Your task to perform on an android device: Search for sushi restaurants on Maps Image 0: 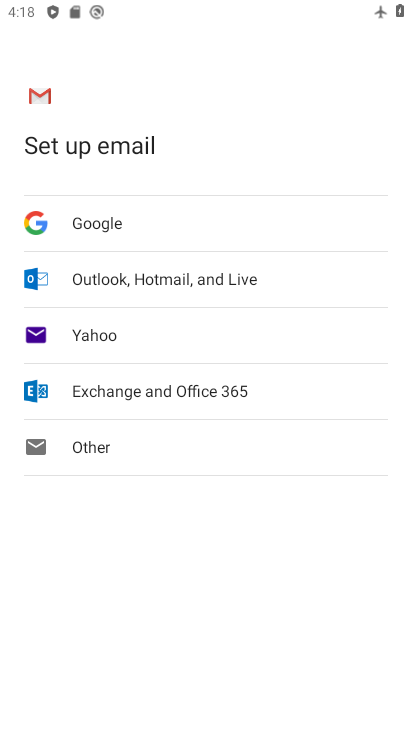
Step 0: press home button
Your task to perform on an android device: Search for sushi restaurants on Maps Image 1: 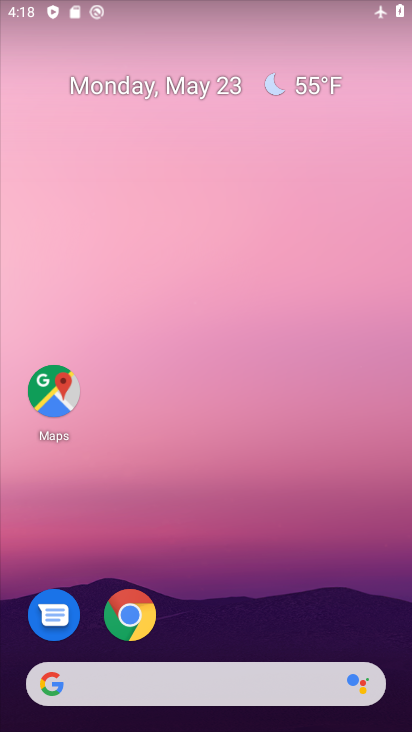
Step 1: drag from (285, 596) to (299, 288)
Your task to perform on an android device: Search for sushi restaurants on Maps Image 2: 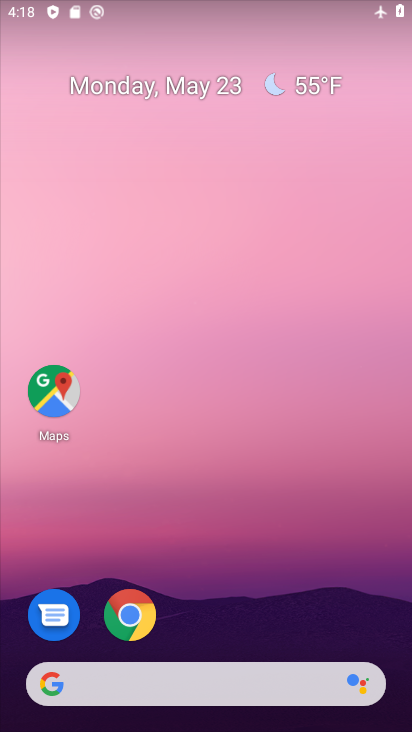
Step 2: drag from (345, 611) to (366, 205)
Your task to perform on an android device: Search for sushi restaurants on Maps Image 3: 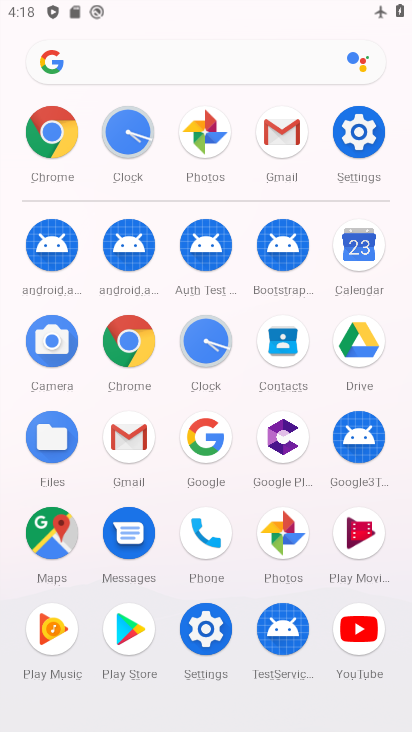
Step 3: click (58, 535)
Your task to perform on an android device: Search for sushi restaurants on Maps Image 4: 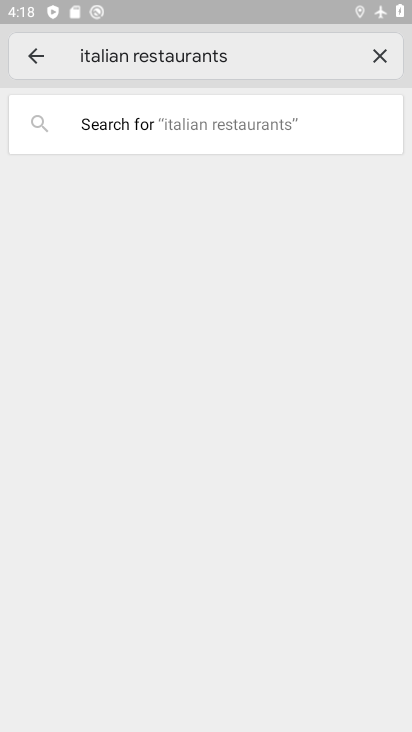
Step 4: click (382, 56)
Your task to perform on an android device: Search for sushi restaurants on Maps Image 5: 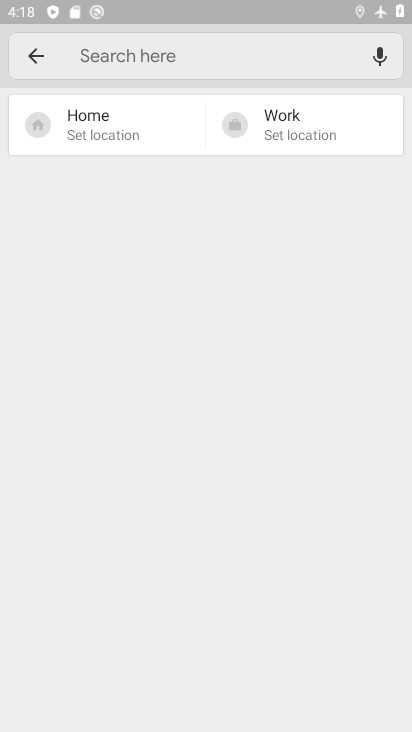
Step 5: click (197, 57)
Your task to perform on an android device: Search for sushi restaurants on Maps Image 6: 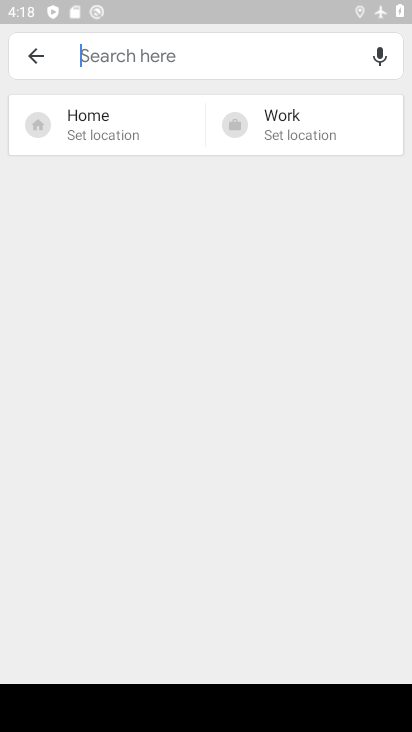
Step 6: type "sushi restaurants"
Your task to perform on an android device: Search for sushi restaurants on Maps Image 7: 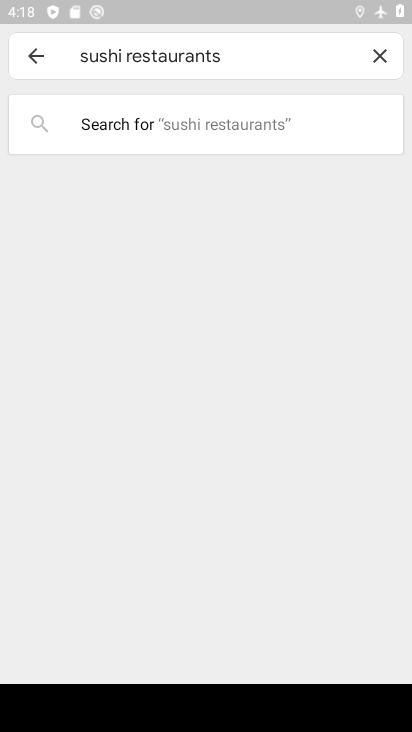
Step 7: task complete